Your task to perform on an android device: turn off data saver in the chrome app Image 0: 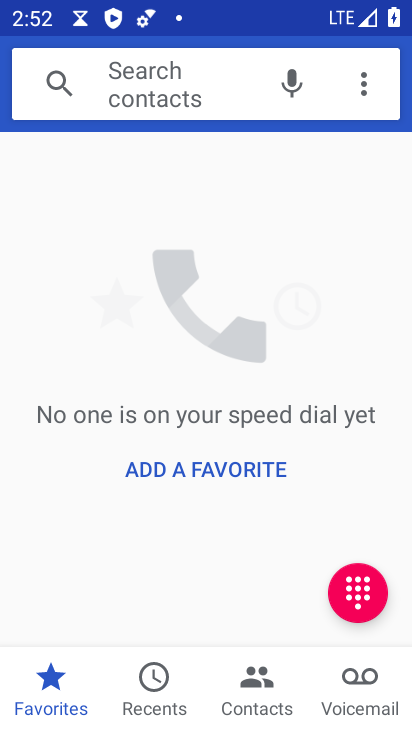
Step 0: press home button
Your task to perform on an android device: turn off data saver in the chrome app Image 1: 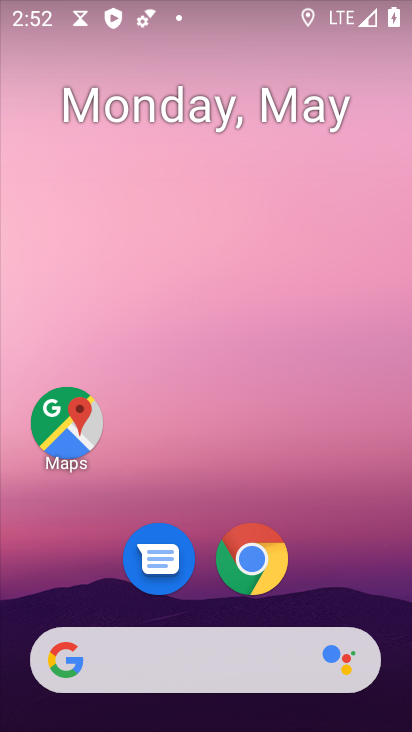
Step 1: click (261, 562)
Your task to perform on an android device: turn off data saver in the chrome app Image 2: 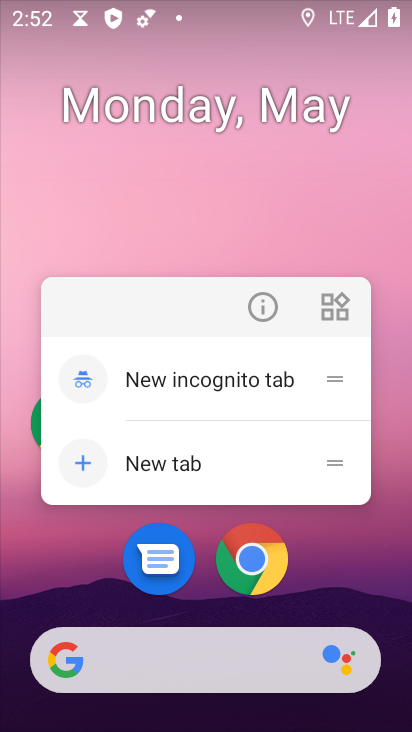
Step 2: click (253, 568)
Your task to perform on an android device: turn off data saver in the chrome app Image 3: 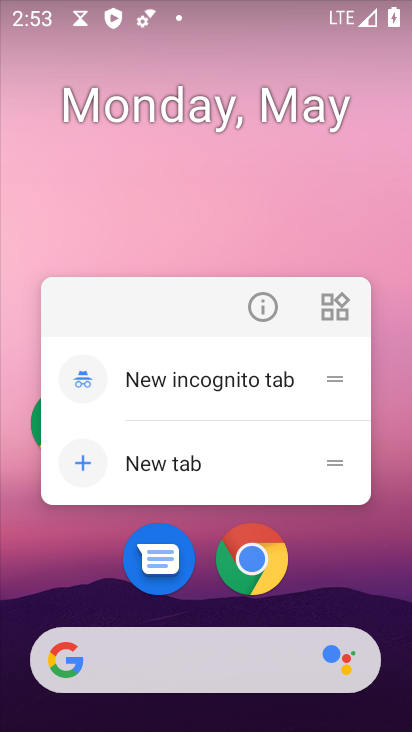
Step 3: click (260, 580)
Your task to perform on an android device: turn off data saver in the chrome app Image 4: 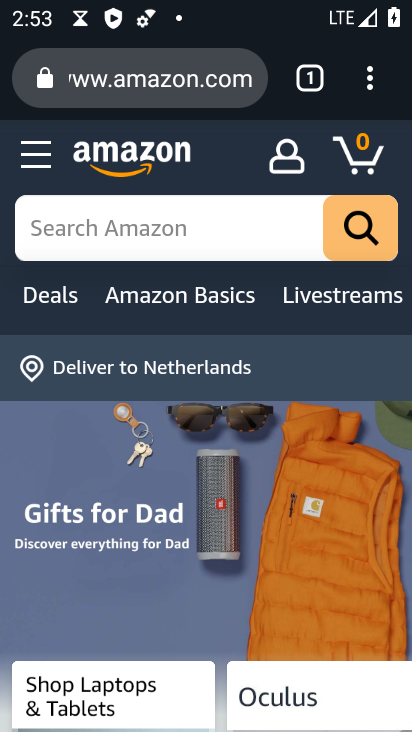
Step 4: click (381, 109)
Your task to perform on an android device: turn off data saver in the chrome app Image 5: 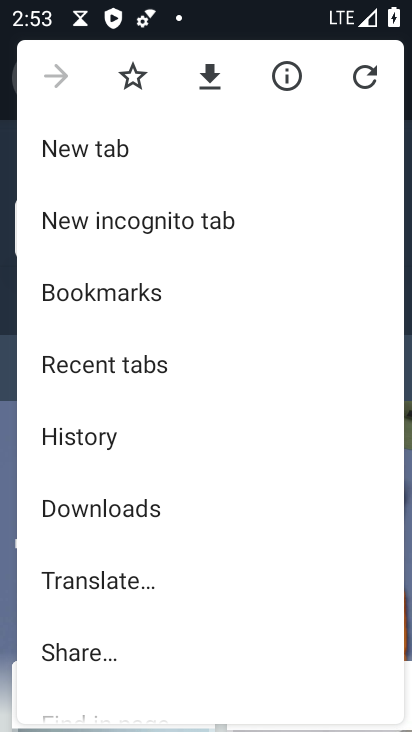
Step 5: drag from (150, 626) to (118, 111)
Your task to perform on an android device: turn off data saver in the chrome app Image 6: 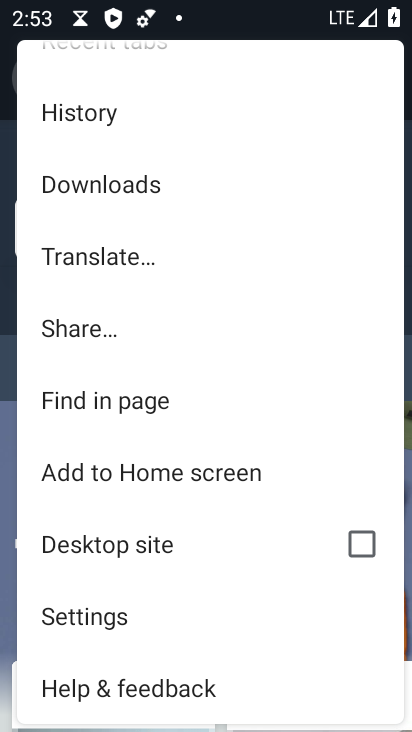
Step 6: click (105, 622)
Your task to perform on an android device: turn off data saver in the chrome app Image 7: 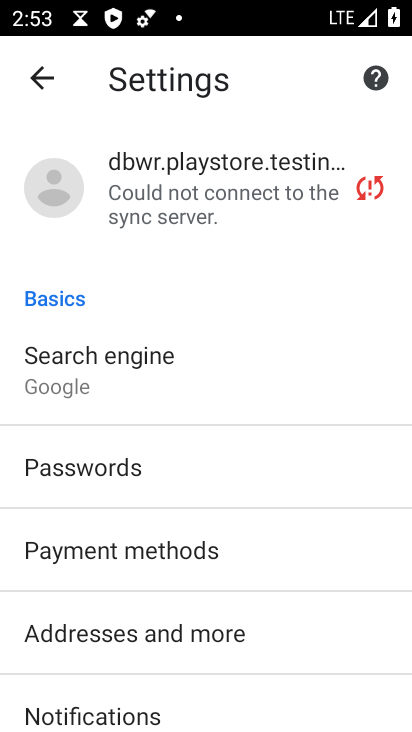
Step 7: drag from (116, 680) to (110, 299)
Your task to perform on an android device: turn off data saver in the chrome app Image 8: 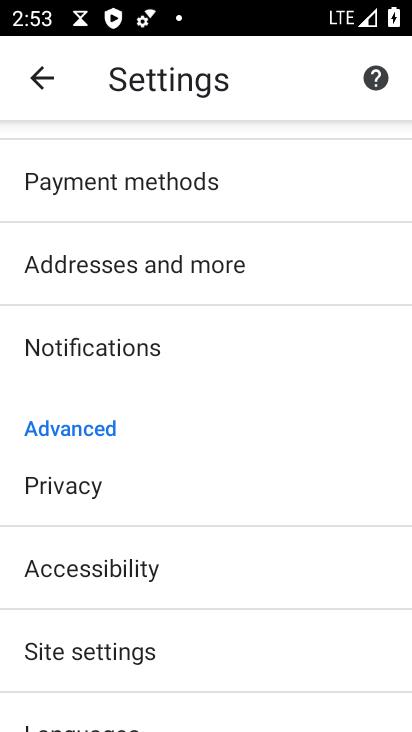
Step 8: drag from (154, 624) to (142, 263)
Your task to perform on an android device: turn off data saver in the chrome app Image 9: 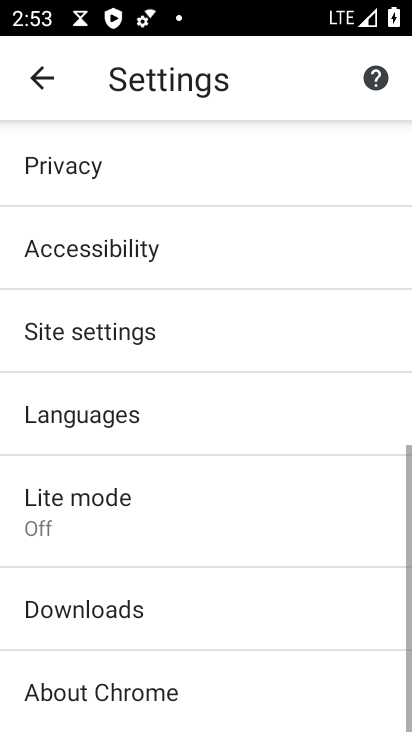
Step 9: click (114, 511)
Your task to perform on an android device: turn off data saver in the chrome app Image 10: 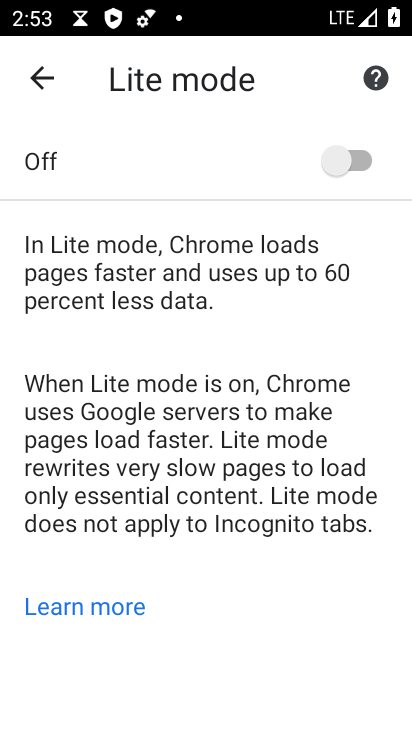
Step 10: task complete